Your task to perform on an android device: Open Amazon Image 0: 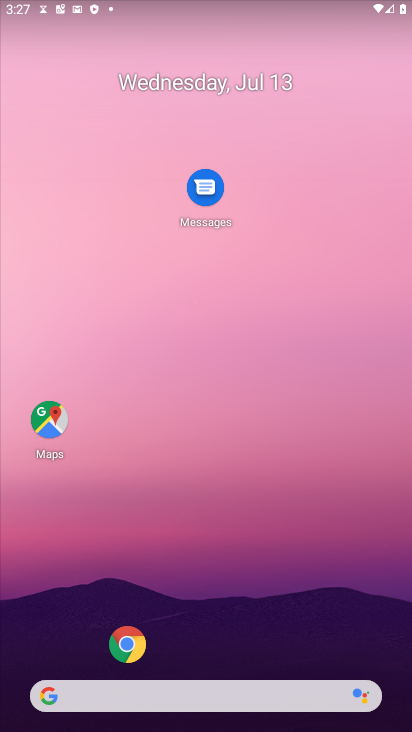
Step 0: click (97, 700)
Your task to perform on an android device: Open Amazon Image 1: 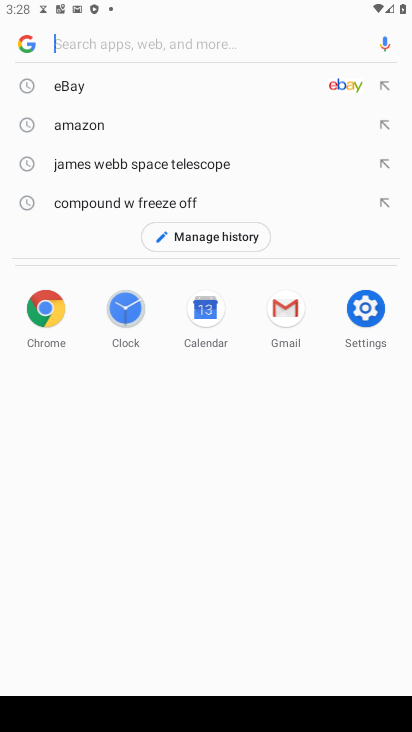
Step 1: type "Amazon"
Your task to perform on an android device: Open Amazon Image 2: 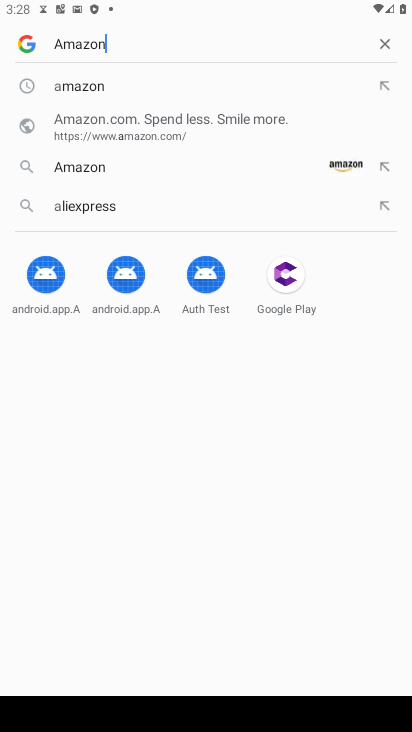
Step 2: type ""
Your task to perform on an android device: Open Amazon Image 3: 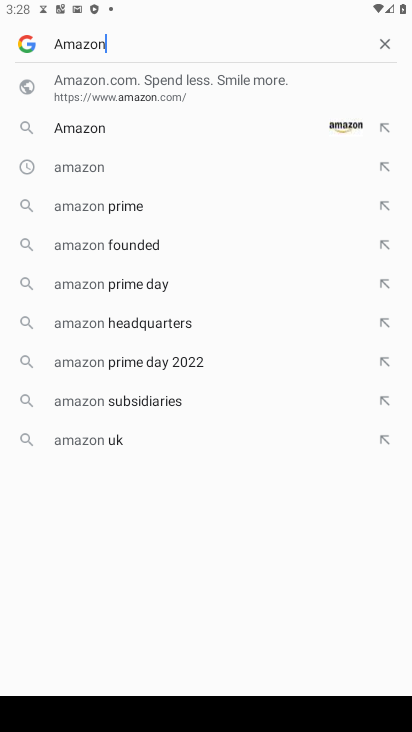
Step 3: click (126, 128)
Your task to perform on an android device: Open Amazon Image 4: 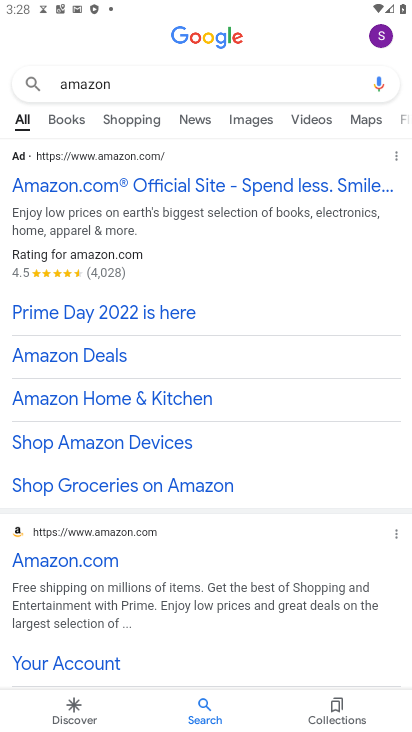
Step 4: task complete